Your task to perform on an android device: change timer sound Image 0: 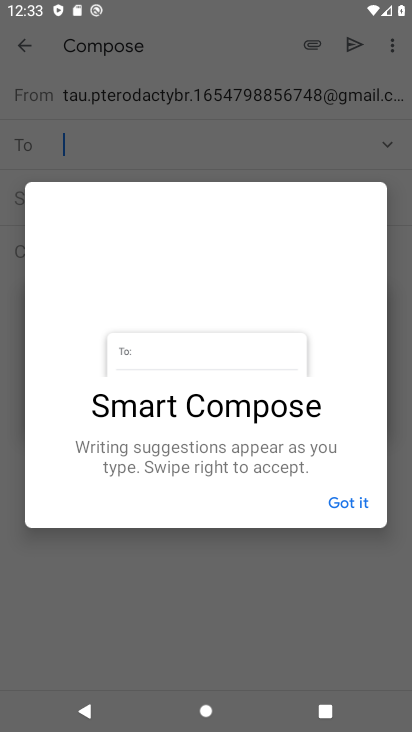
Step 0: press home button
Your task to perform on an android device: change timer sound Image 1: 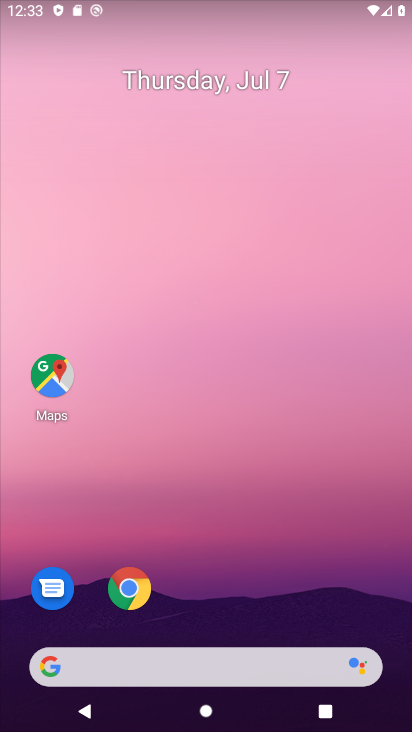
Step 1: drag from (307, 640) to (247, 45)
Your task to perform on an android device: change timer sound Image 2: 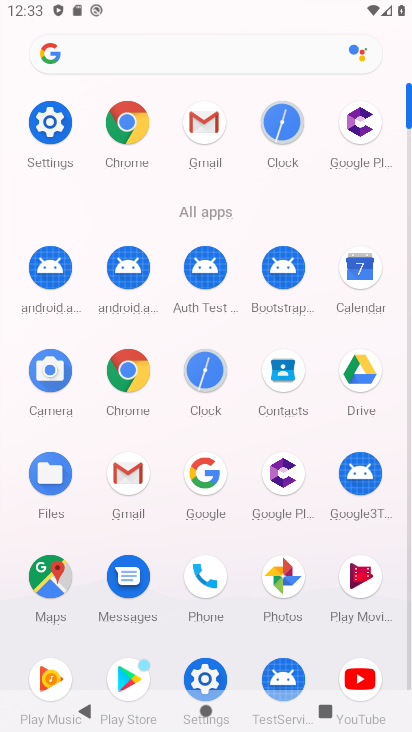
Step 2: click (275, 116)
Your task to perform on an android device: change timer sound Image 3: 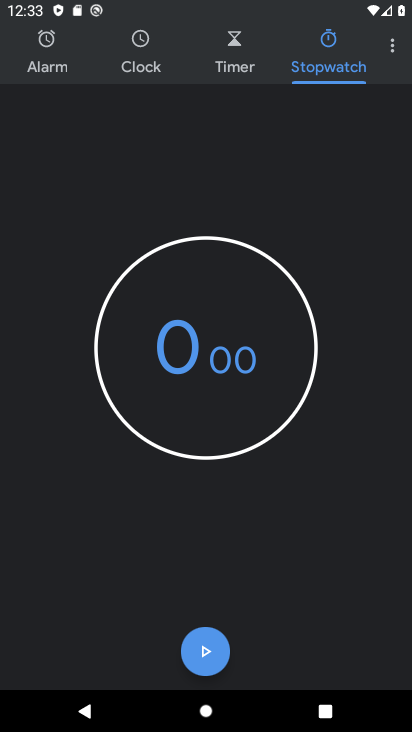
Step 3: click (383, 39)
Your task to perform on an android device: change timer sound Image 4: 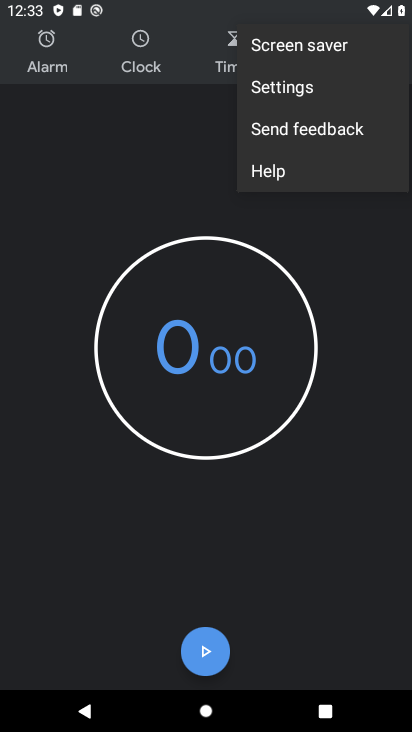
Step 4: click (298, 100)
Your task to perform on an android device: change timer sound Image 5: 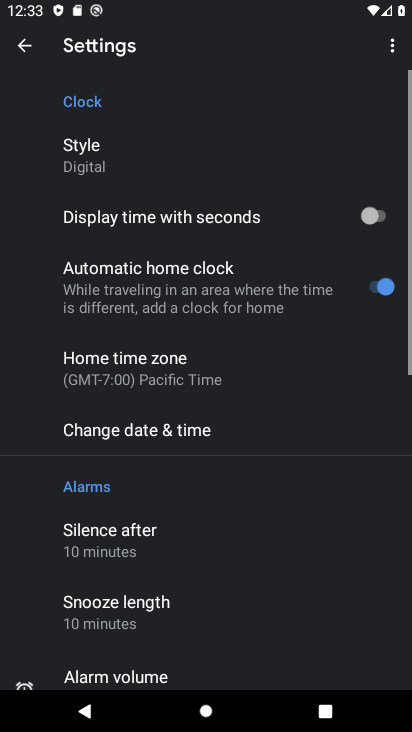
Step 5: drag from (220, 638) to (237, 384)
Your task to perform on an android device: change timer sound Image 6: 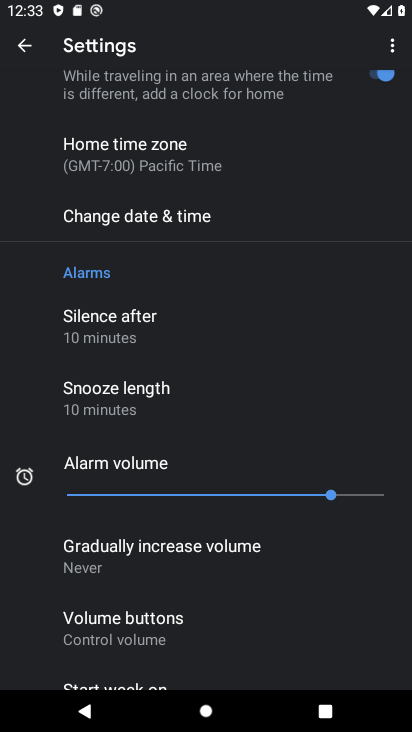
Step 6: click (176, 406)
Your task to perform on an android device: change timer sound Image 7: 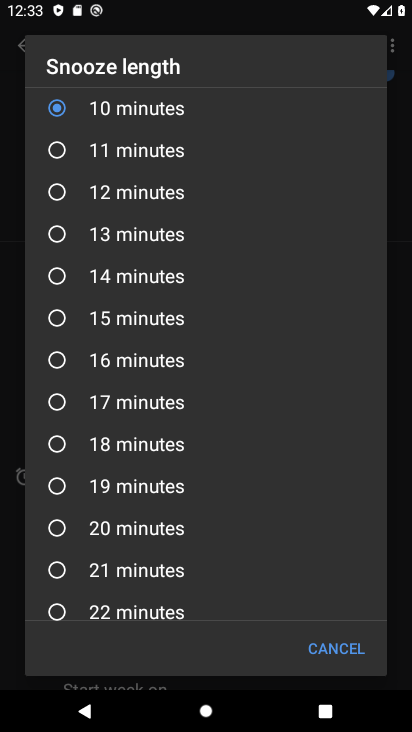
Step 7: click (329, 655)
Your task to perform on an android device: change timer sound Image 8: 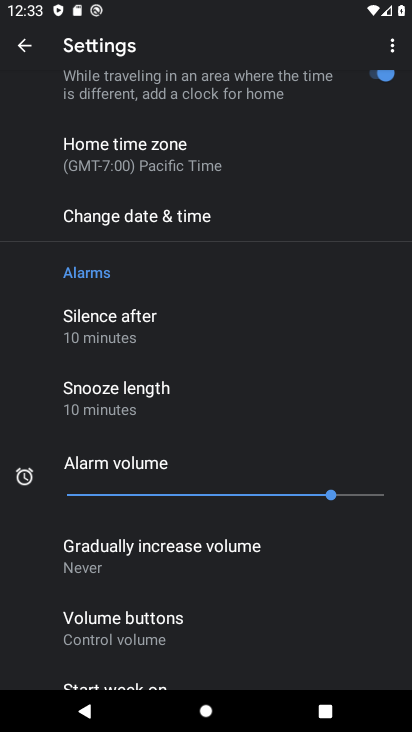
Step 8: drag from (257, 628) to (279, 400)
Your task to perform on an android device: change timer sound Image 9: 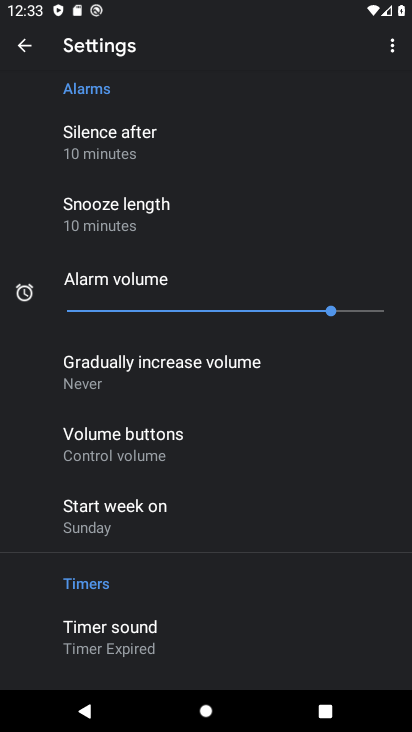
Step 9: click (183, 646)
Your task to perform on an android device: change timer sound Image 10: 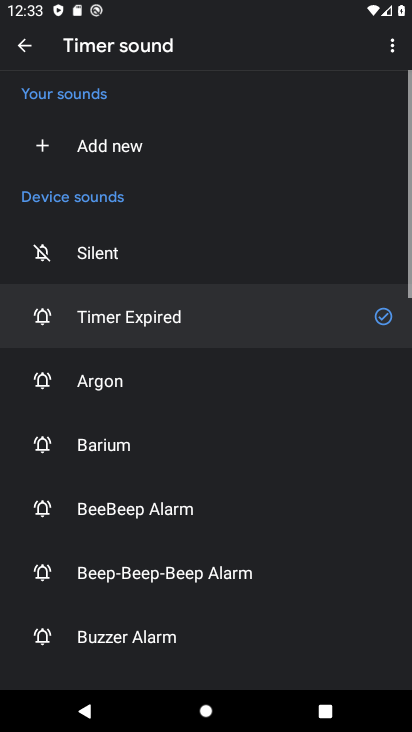
Step 10: click (164, 371)
Your task to perform on an android device: change timer sound Image 11: 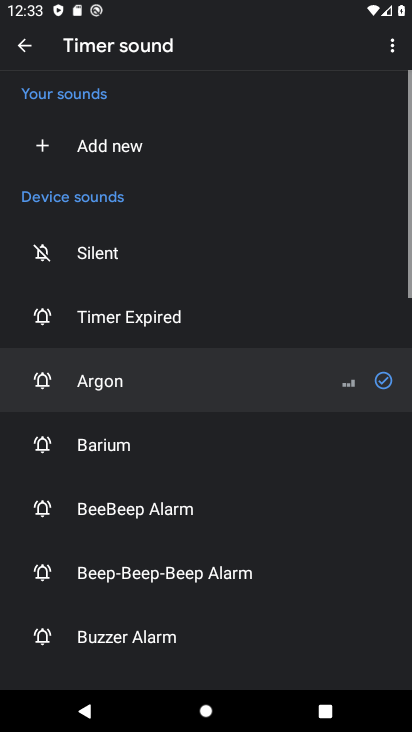
Step 11: task complete